Your task to perform on an android device: all mails in gmail Image 0: 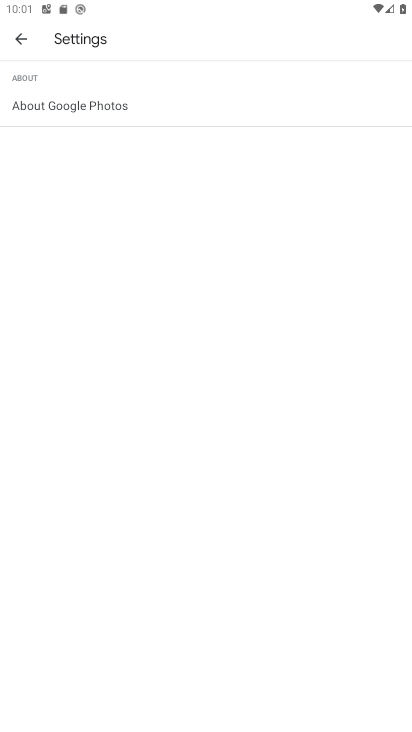
Step 0: press home button
Your task to perform on an android device: all mails in gmail Image 1: 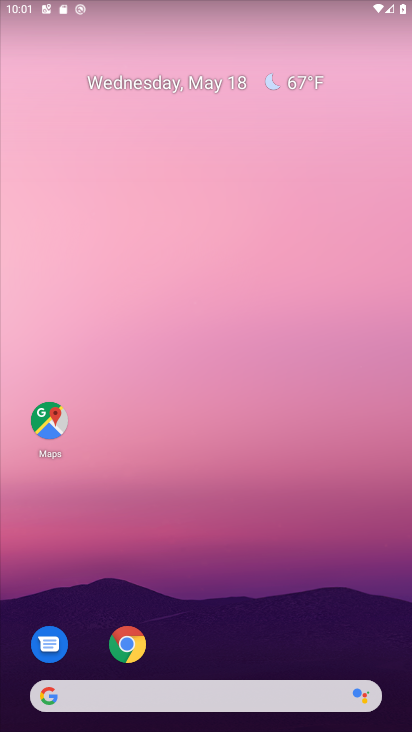
Step 1: drag from (243, 638) to (176, 295)
Your task to perform on an android device: all mails in gmail Image 2: 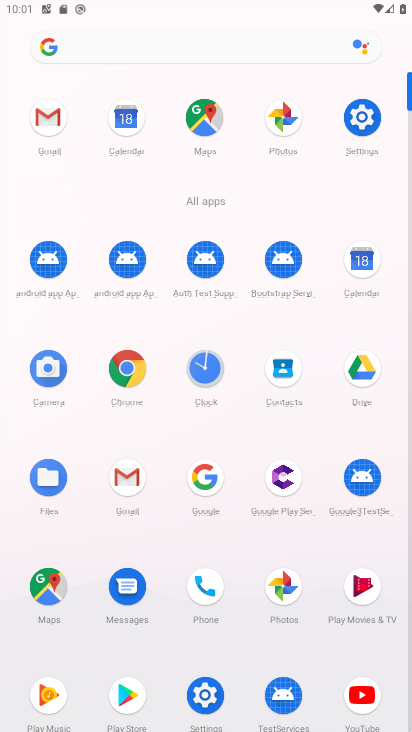
Step 2: click (44, 117)
Your task to perform on an android device: all mails in gmail Image 3: 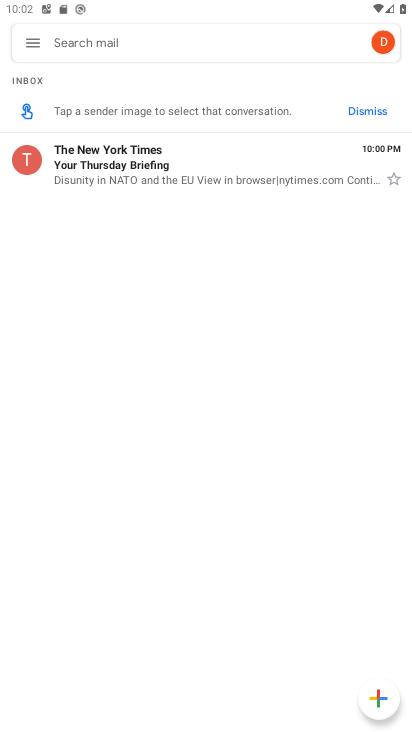
Step 3: click (37, 43)
Your task to perform on an android device: all mails in gmail Image 4: 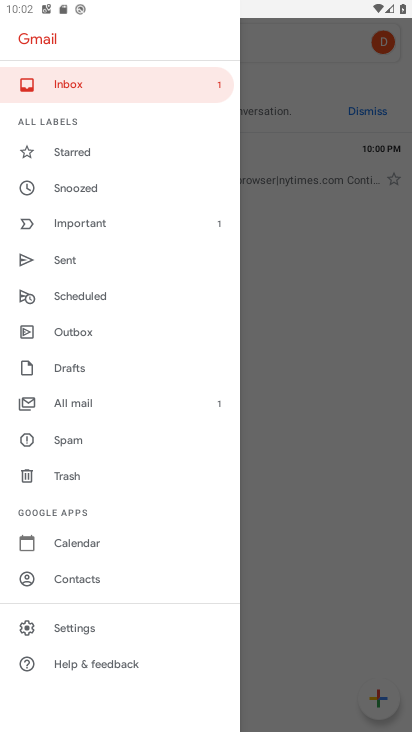
Step 4: click (87, 405)
Your task to perform on an android device: all mails in gmail Image 5: 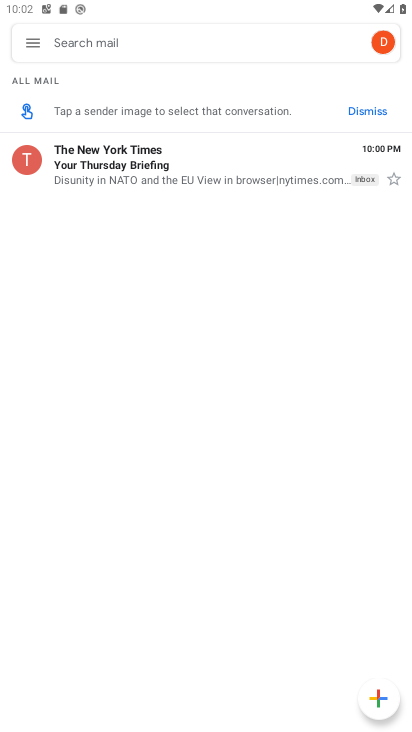
Step 5: task complete